Your task to perform on an android device: When is my next meeting? Image 0: 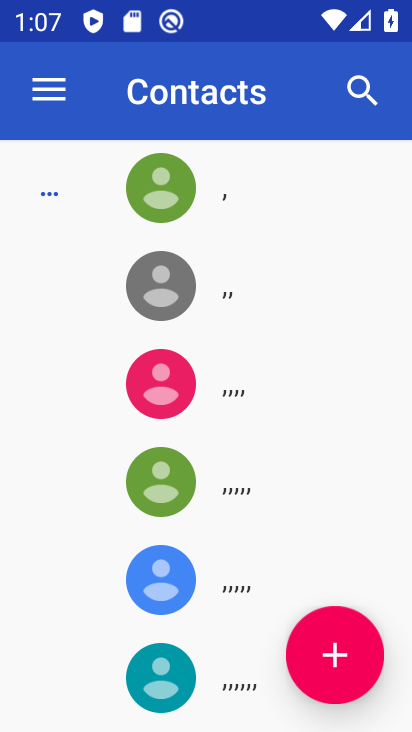
Step 0: press back button
Your task to perform on an android device: When is my next meeting? Image 1: 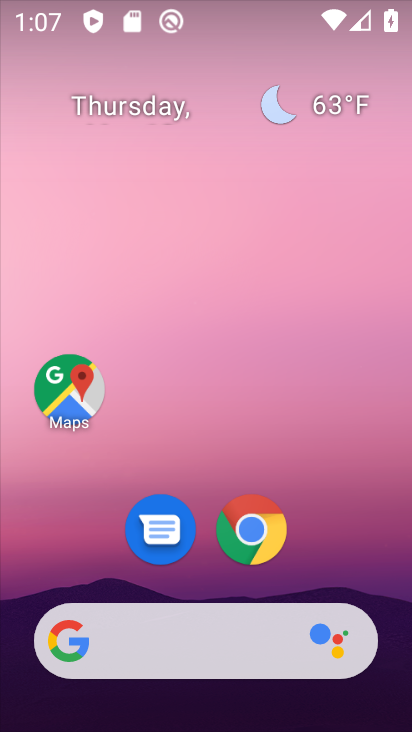
Step 1: drag from (347, 566) to (276, 86)
Your task to perform on an android device: When is my next meeting? Image 2: 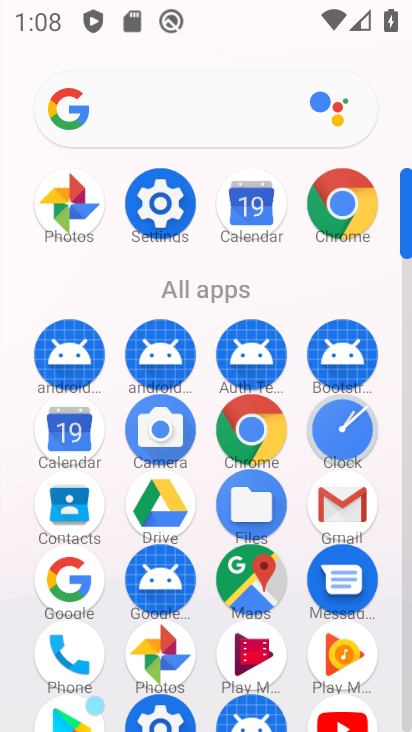
Step 2: click (68, 431)
Your task to perform on an android device: When is my next meeting? Image 3: 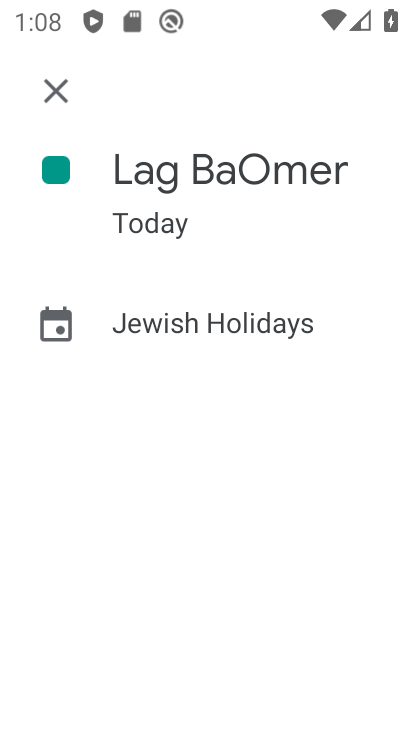
Step 3: click (51, 91)
Your task to perform on an android device: When is my next meeting? Image 4: 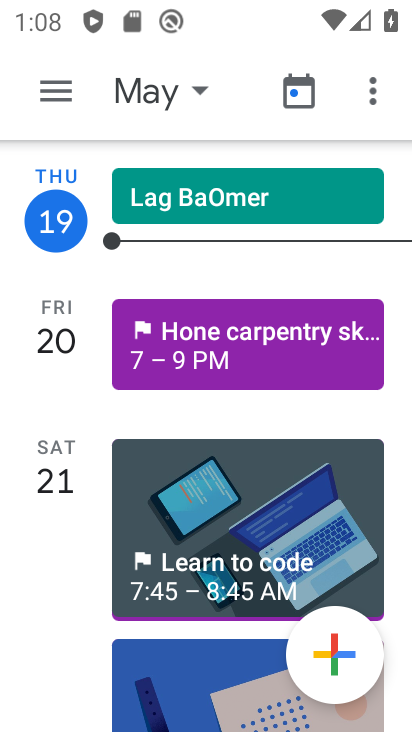
Step 4: click (199, 91)
Your task to perform on an android device: When is my next meeting? Image 5: 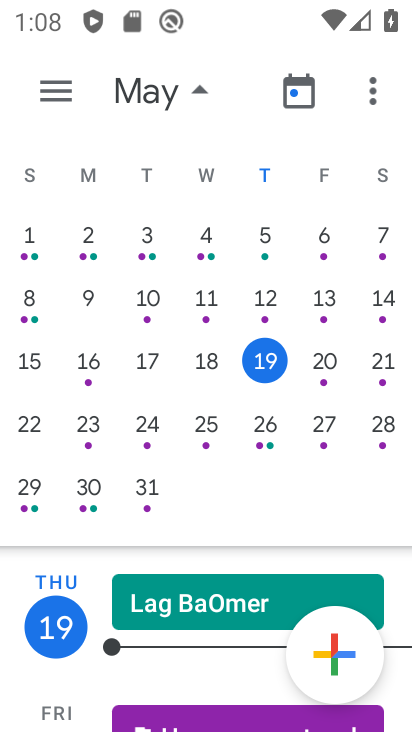
Step 5: click (332, 358)
Your task to perform on an android device: When is my next meeting? Image 6: 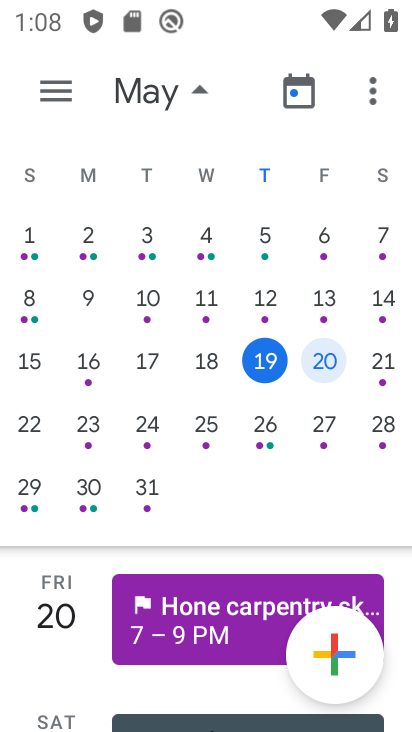
Step 6: click (54, 94)
Your task to perform on an android device: When is my next meeting? Image 7: 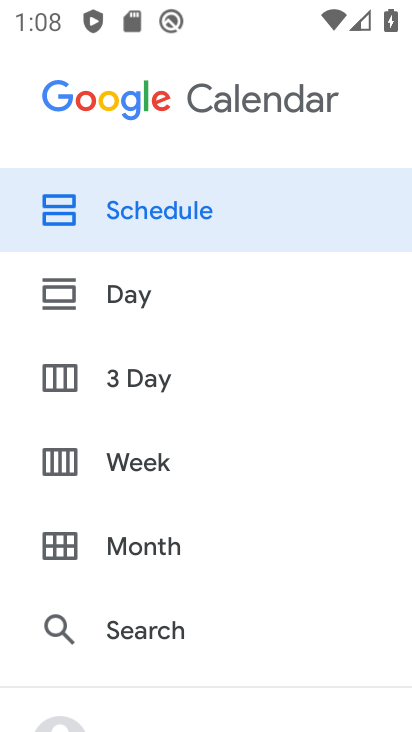
Step 7: click (174, 469)
Your task to perform on an android device: When is my next meeting? Image 8: 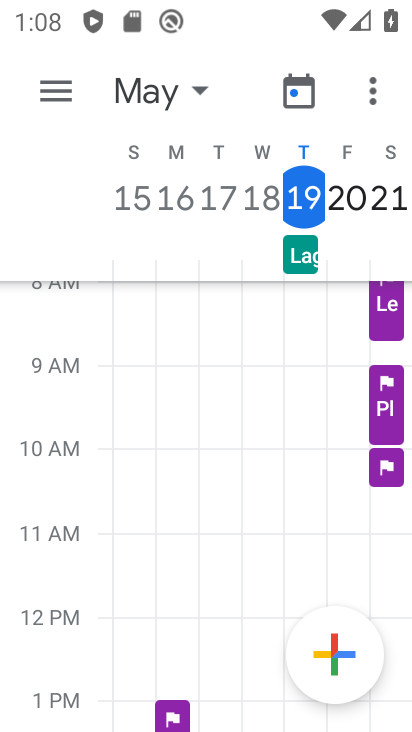
Step 8: task complete